Your task to perform on an android device: turn notification dots off Image 0: 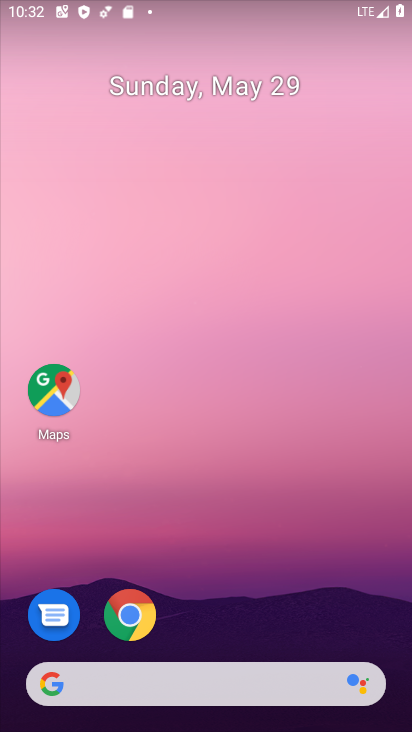
Step 0: drag from (375, 624) to (396, 341)
Your task to perform on an android device: turn notification dots off Image 1: 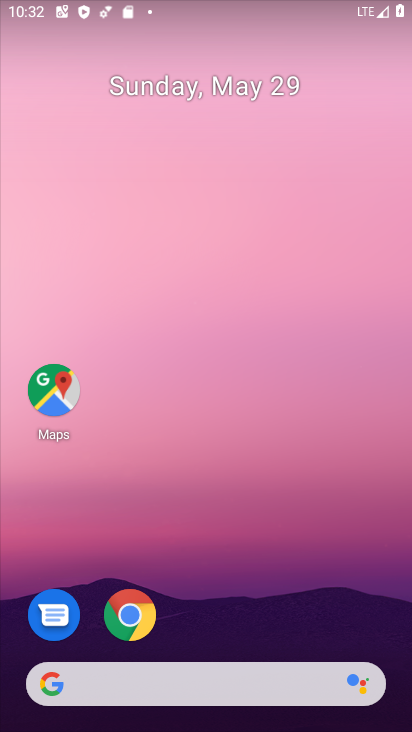
Step 1: drag from (321, 617) to (339, 194)
Your task to perform on an android device: turn notification dots off Image 2: 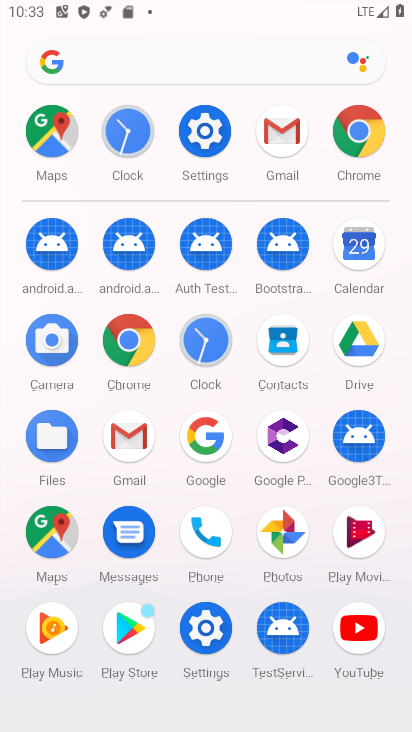
Step 2: click (209, 632)
Your task to perform on an android device: turn notification dots off Image 3: 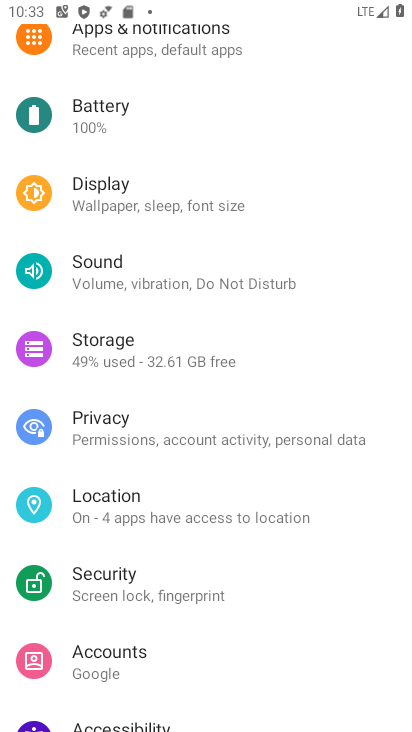
Step 3: drag from (350, 250) to (366, 352)
Your task to perform on an android device: turn notification dots off Image 4: 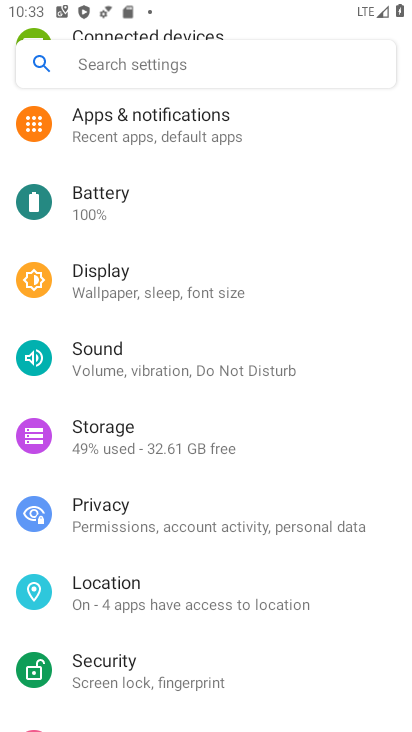
Step 4: drag from (354, 263) to (354, 369)
Your task to perform on an android device: turn notification dots off Image 5: 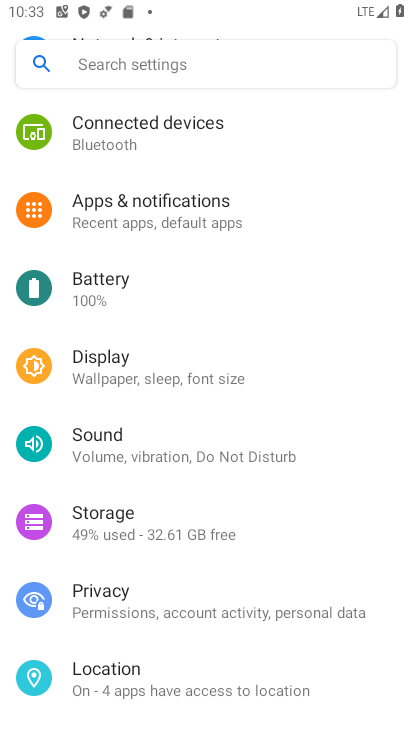
Step 5: drag from (347, 258) to (345, 346)
Your task to perform on an android device: turn notification dots off Image 6: 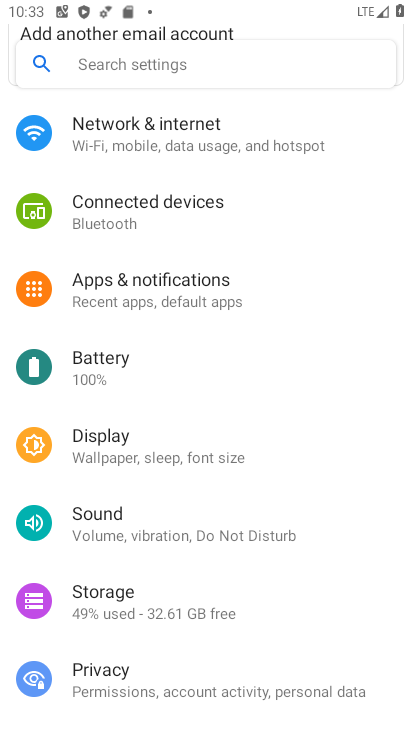
Step 6: drag from (338, 236) to (338, 363)
Your task to perform on an android device: turn notification dots off Image 7: 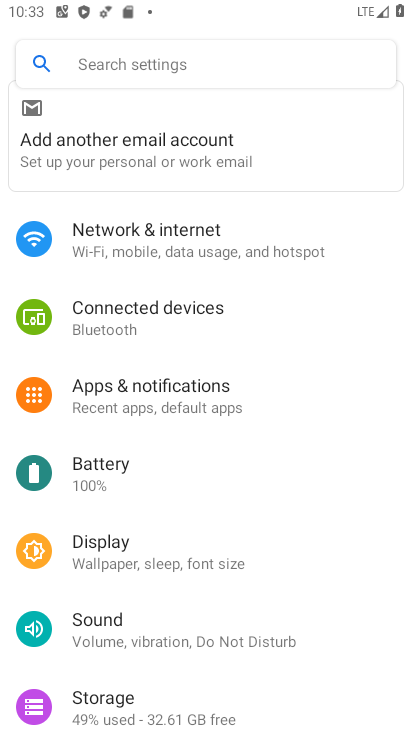
Step 7: drag from (339, 226) to (337, 353)
Your task to perform on an android device: turn notification dots off Image 8: 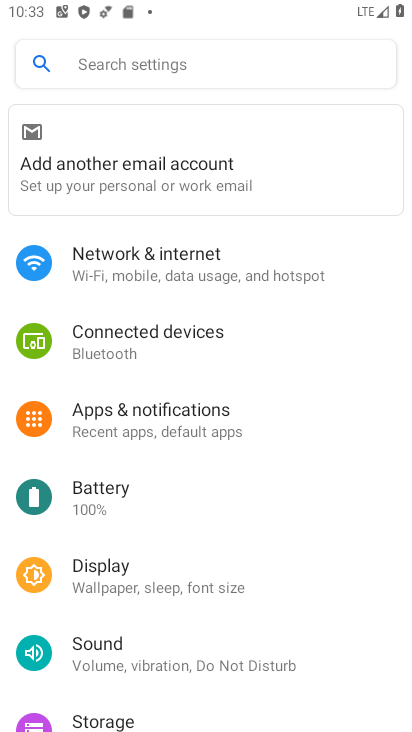
Step 8: drag from (327, 525) to (346, 417)
Your task to perform on an android device: turn notification dots off Image 9: 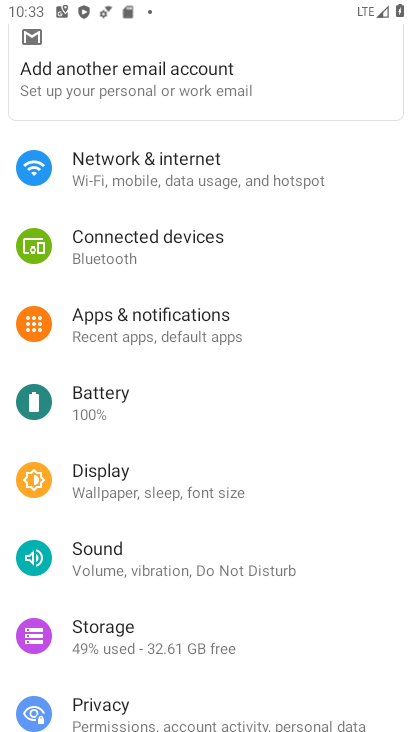
Step 9: drag from (359, 523) to (361, 489)
Your task to perform on an android device: turn notification dots off Image 10: 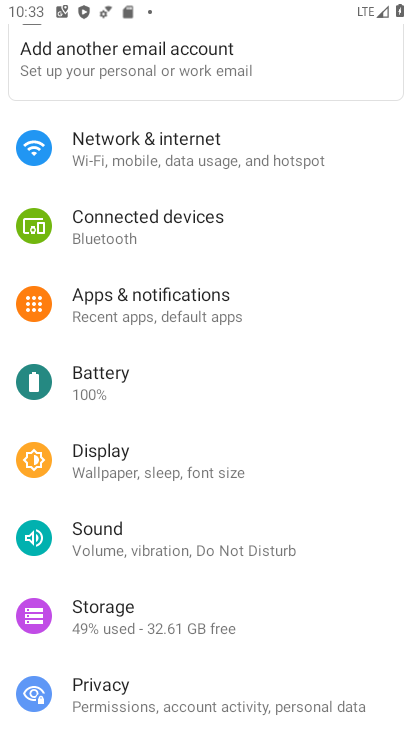
Step 10: drag from (381, 492) to (377, 331)
Your task to perform on an android device: turn notification dots off Image 11: 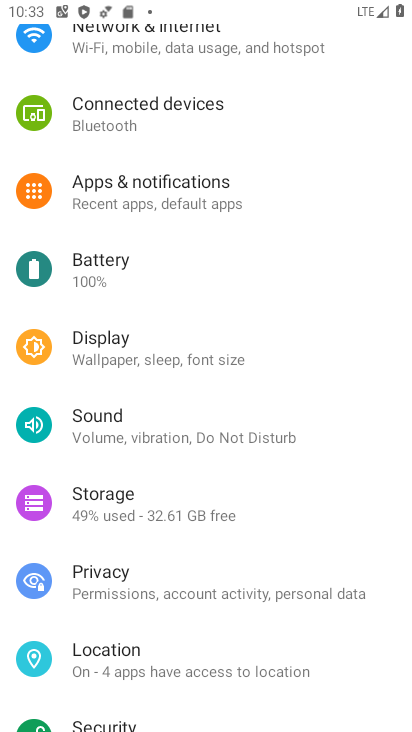
Step 11: drag from (317, 252) to (320, 399)
Your task to perform on an android device: turn notification dots off Image 12: 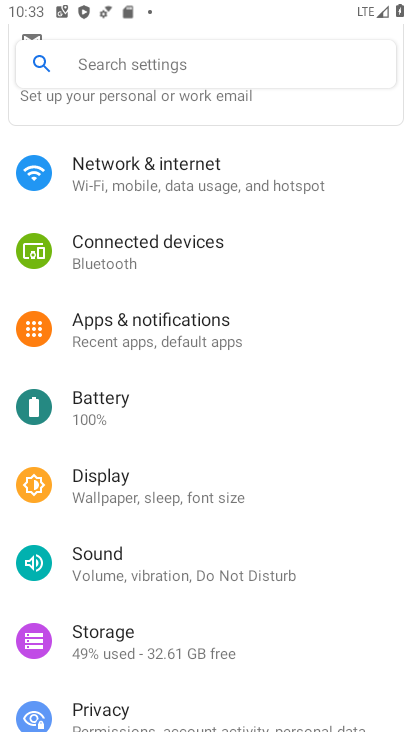
Step 12: click (215, 326)
Your task to perform on an android device: turn notification dots off Image 13: 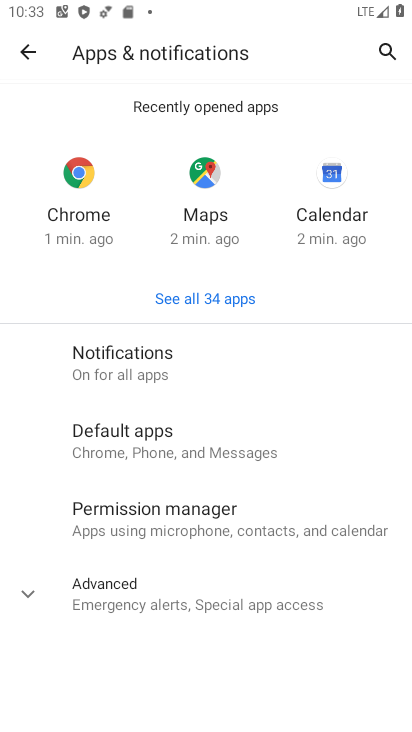
Step 13: click (229, 366)
Your task to perform on an android device: turn notification dots off Image 14: 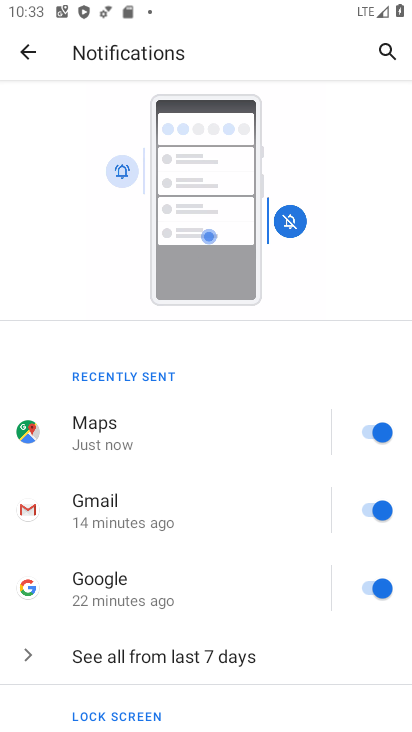
Step 14: drag from (246, 529) to (254, 447)
Your task to perform on an android device: turn notification dots off Image 15: 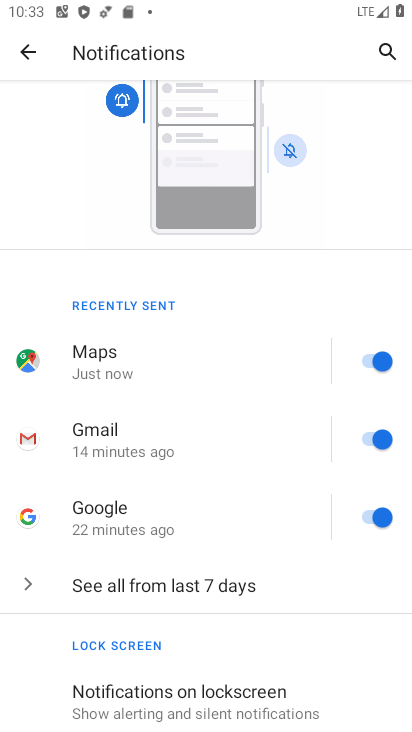
Step 15: drag from (275, 584) to (280, 488)
Your task to perform on an android device: turn notification dots off Image 16: 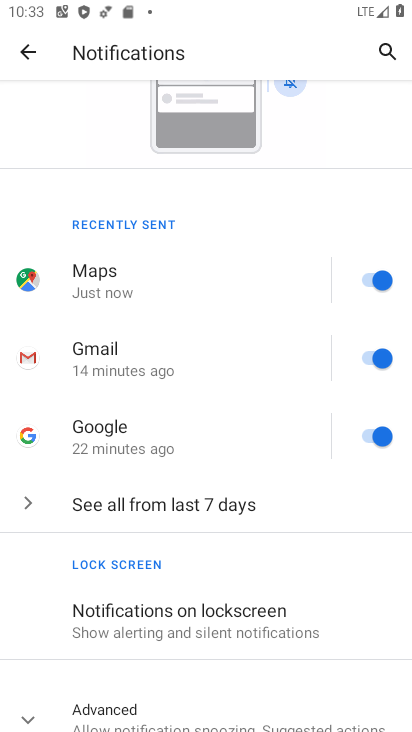
Step 16: drag from (263, 604) to (277, 462)
Your task to perform on an android device: turn notification dots off Image 17: 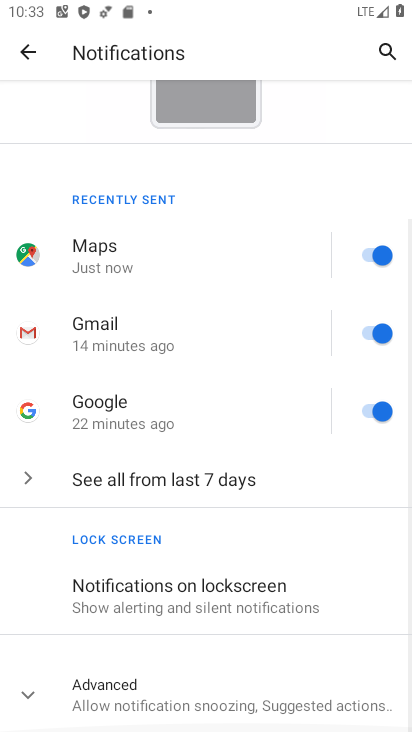
Step 17: click (283, 695)
Your task to perform on an android device: turn notification dots off Image 18: 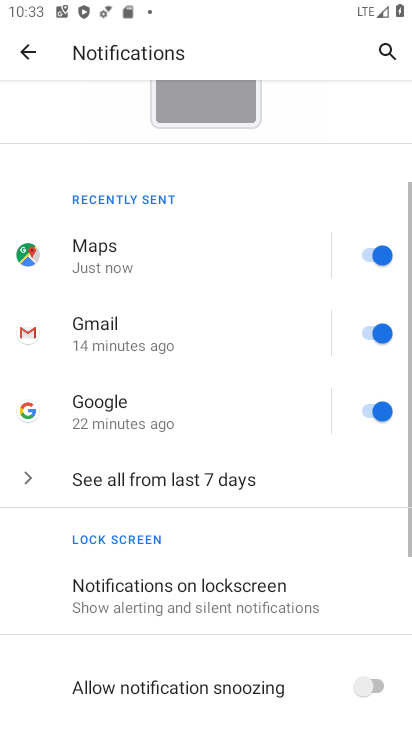
Step 18: drag from (292, 636) to (304, 418)
Your task to perform on an android device: turn notification dots off Image 19: 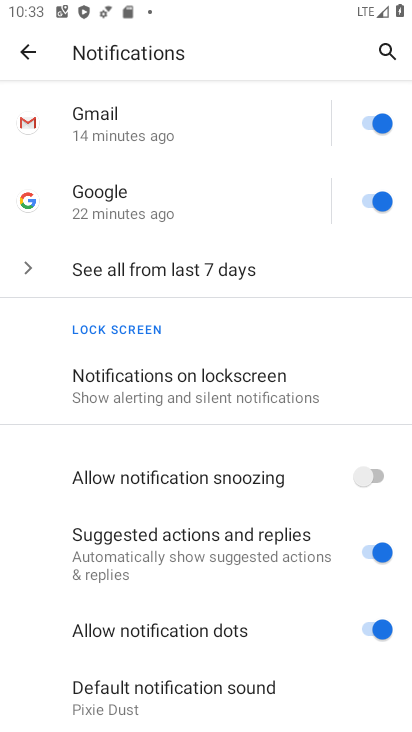
Step 19: click (391, 626)
Your task to perform on an android device: turn notification dots off Image 20: 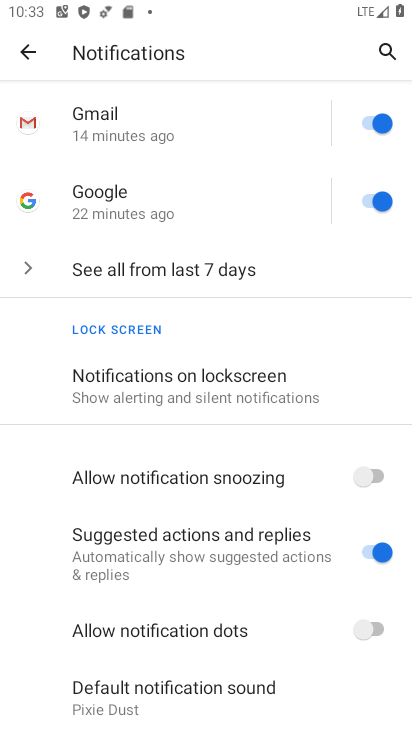
Step 20: task complete